Your task to perform on an android device: open a new tab in the chrome app Image 0: 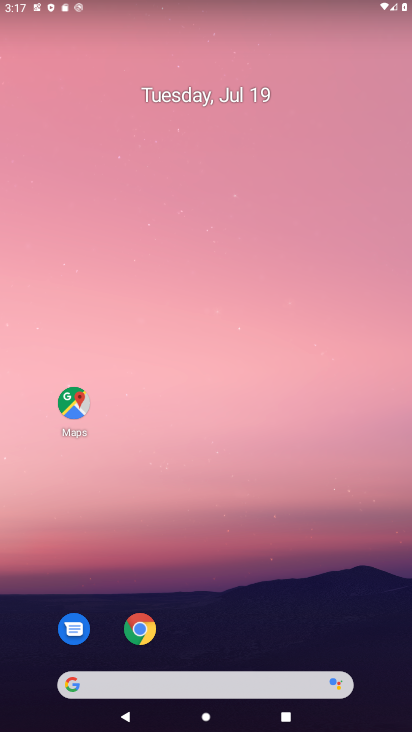
Step 0: press home button
Your task to perform on an android device: open a new tab in the chrome app Image 1: 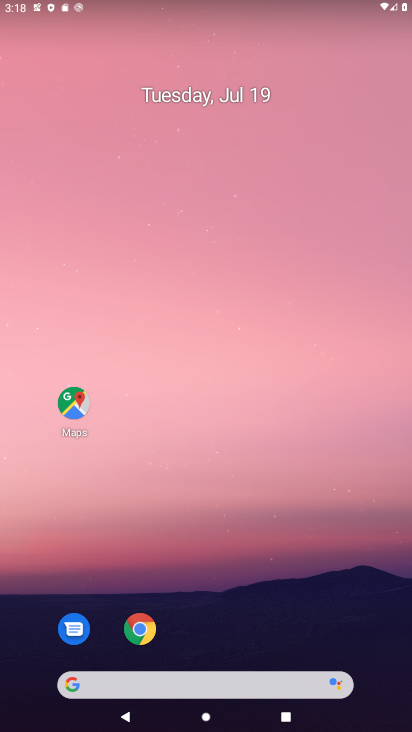
Step 1: click (141, 642)
Your task to perform on an android device: open a new tab in the chrome app Image 2: 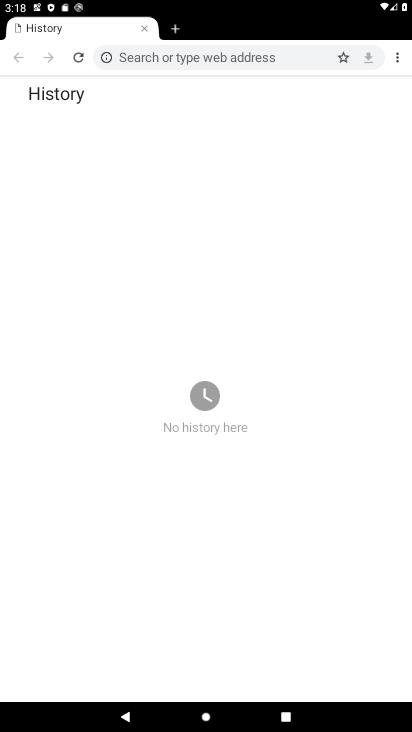
Step 2: click (164, 28)
Your task to perform on an android device: open a new tab in the chrome app Image 3: 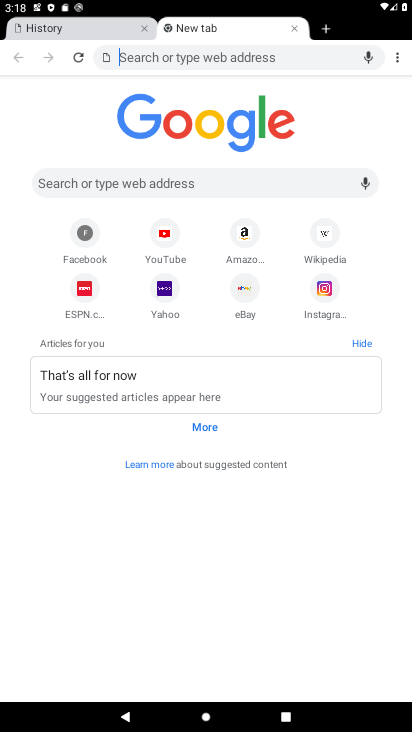
Step 3: task complete